Your task to perform on an android device: When is my next appointment? Image 0: 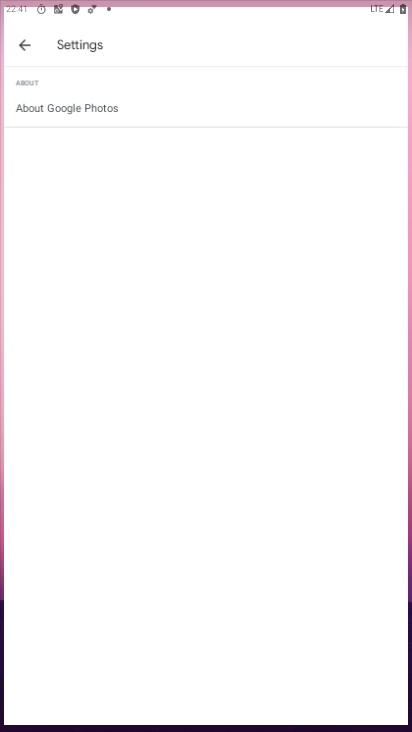
Step 0: press home button
Your task to perform on an android device: When is my next appointment? Image 1: 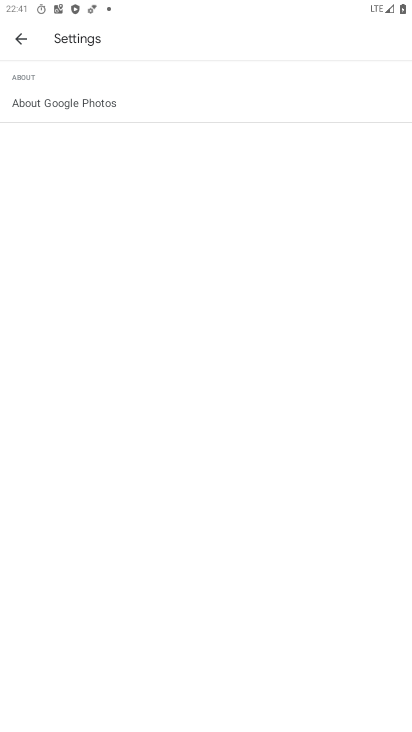
Step 1: press home button
Your task to perform on an android device: When is my next appointment? Image 2: 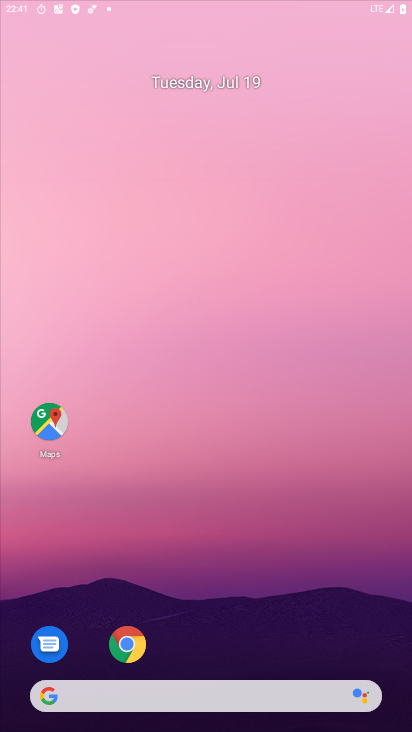
Step 2: press home button
Your task to perform on an android device: When is my next appointment? Image 3: 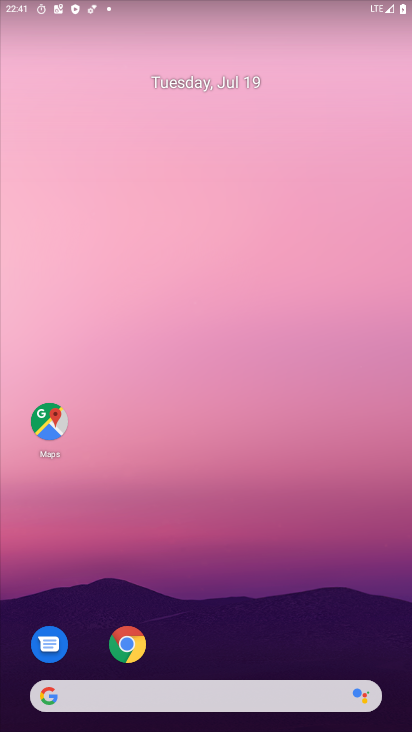
Step 3: press home button
Your task to perform on an android device: When is my next appointment? Image 4: 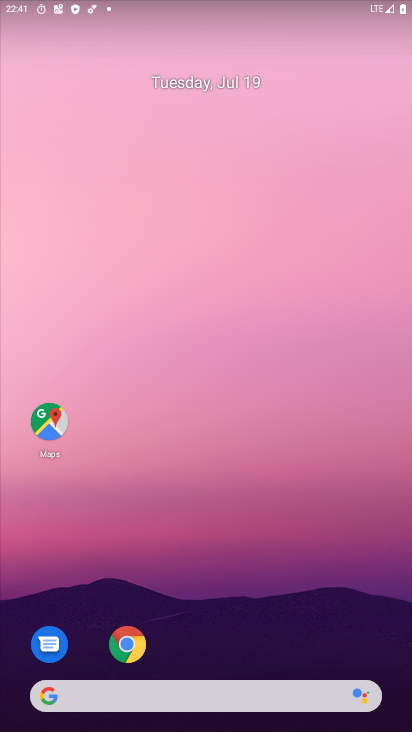
Step 4: press home button
Your task to perform on an android device: When is my next appointment? Image 5: 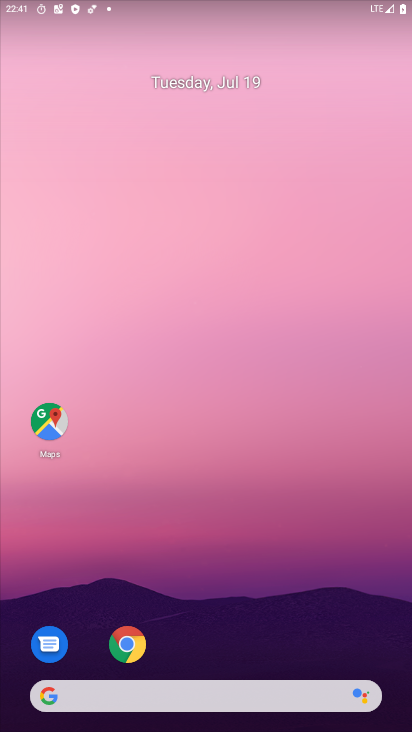
Step 5: drag from (234, 714) to (70, 545)
Your task to perform on an android device: When is my next appointment? Image 6: 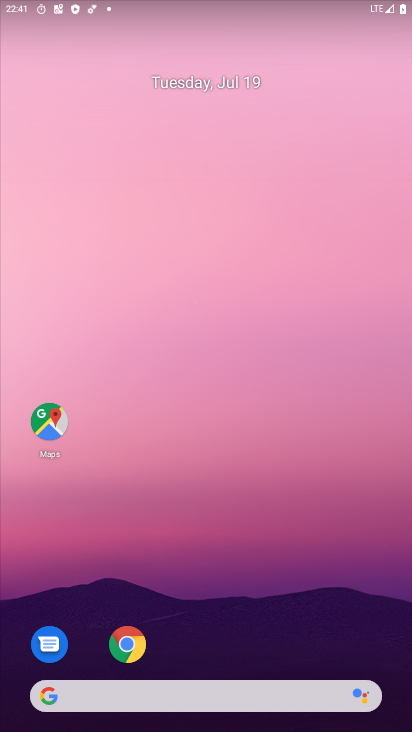
Step 6: drag from (283, 641) to (279, 106)
Your task to perform on an android device: When is my next appointment? Image 7: 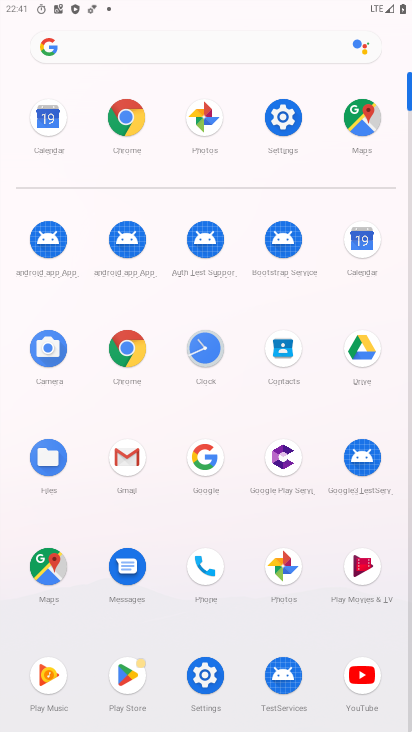
Step 7: click (354, 238)
Your task to perform on an android device: When is my next appointment? Image 8: 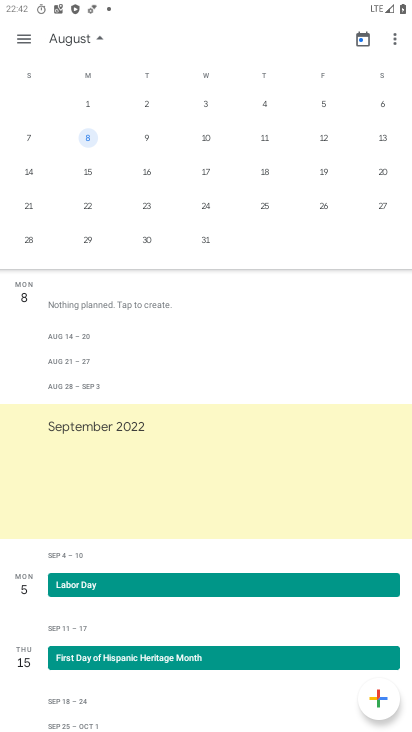
Step 8: drag from (94, 140) to (408, 143)
Your task to perform on an android device: When is my next appointment? Image 9: 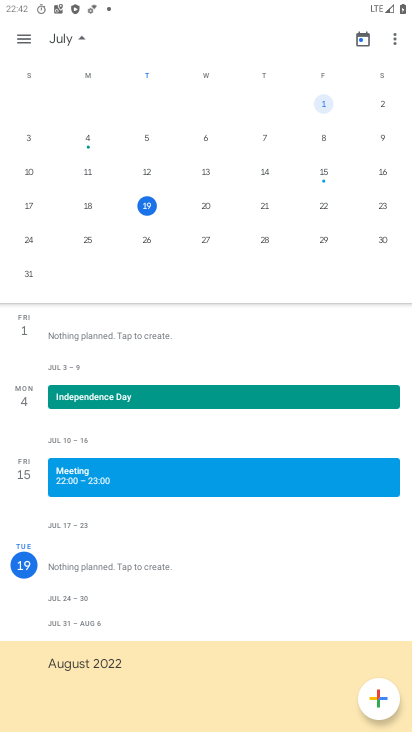
Step 9: click (186, 206)
Your task to perform on an android device: When is my next appointment? Image 10: 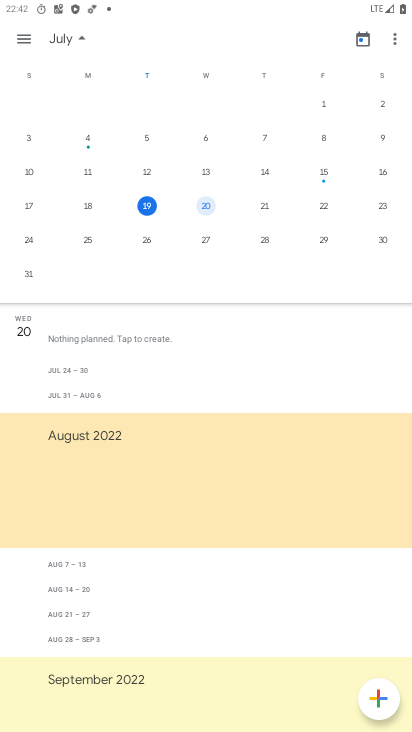
Step 10: click (79, 47)
Your task to perform on an android device: When is my next appointment? Image 11: 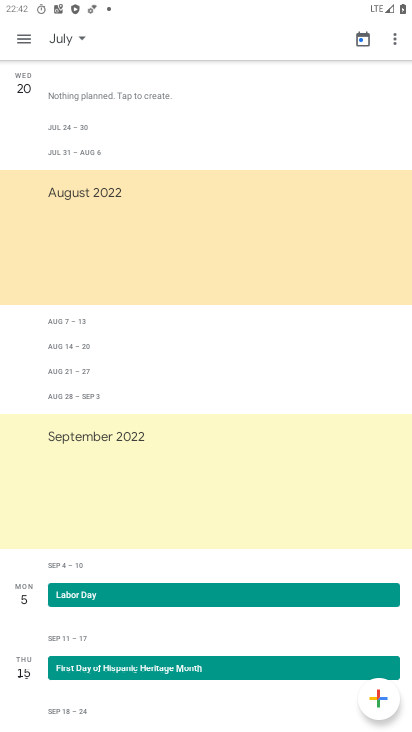
Step 11: task complete